Your task to perform on an android device: Add "logitech g pro" to the cart on newegg, then select checkout. Image 0: 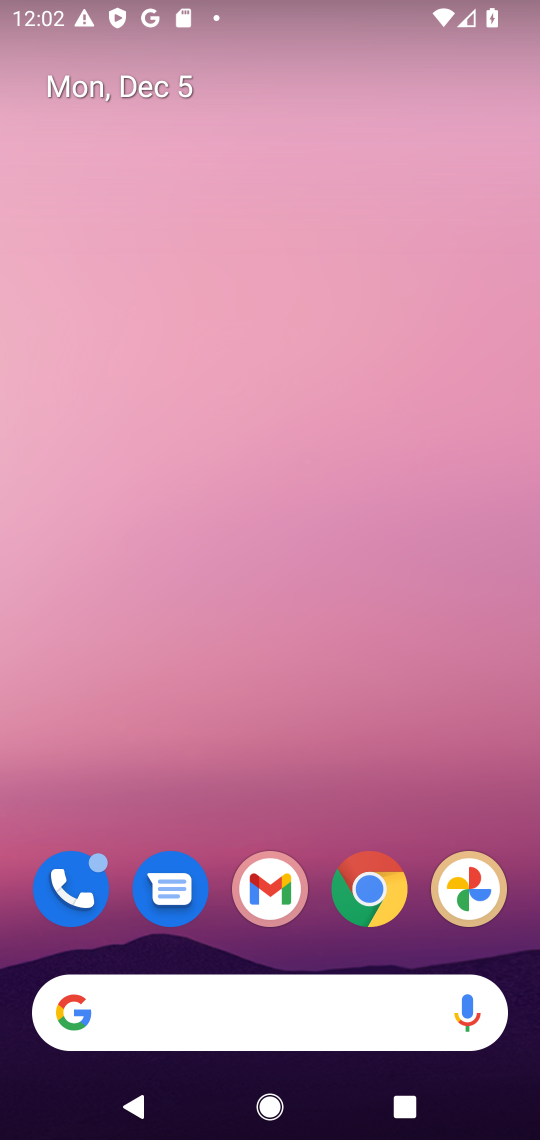
Step 0: click (373, 874)
Your task to perform on an android device: Add "logitech g pro" to the cart on newegg, then select checkout. Image 1: 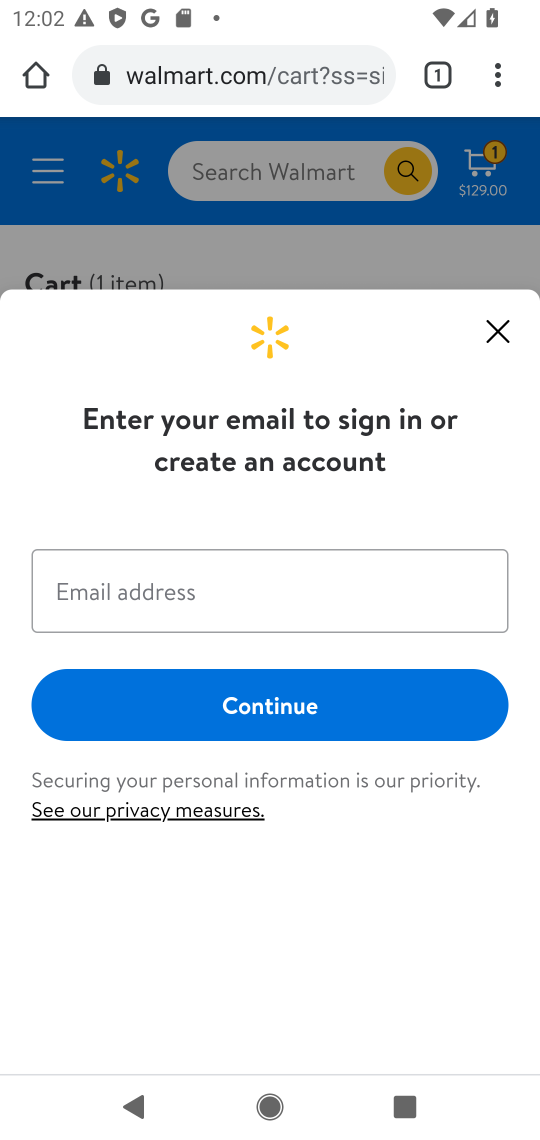
Step 1: click (305, 54)
Your task to perform on an android device: Add "logitech g pro" to the cart on newegg, then select checkout. Image 2: 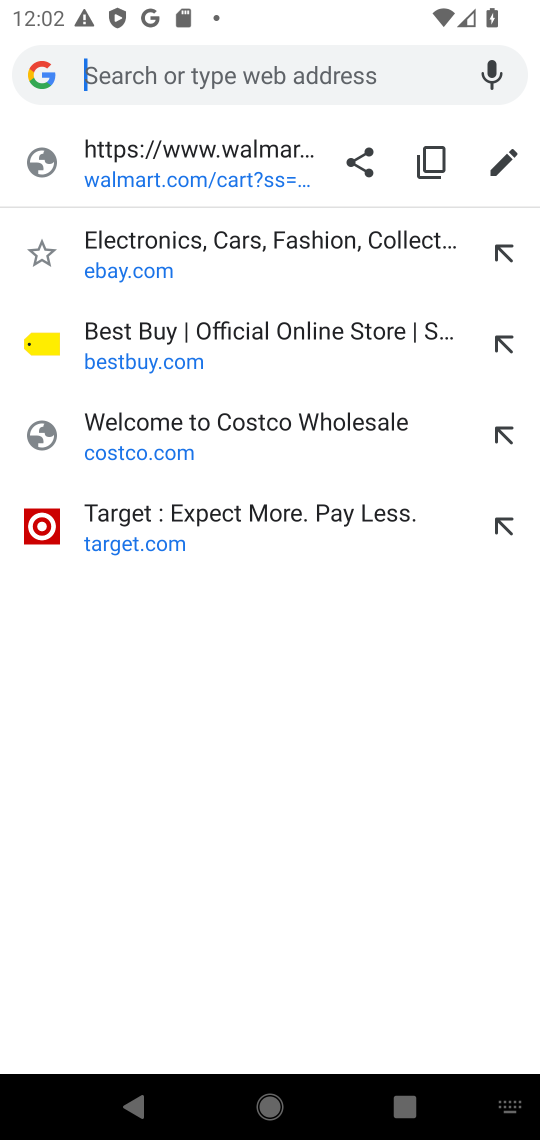
Step 2: press enter
Your task to perform on an android device: Add "logitech g pro" to the cart on newegg, then select checkout. Image 3: 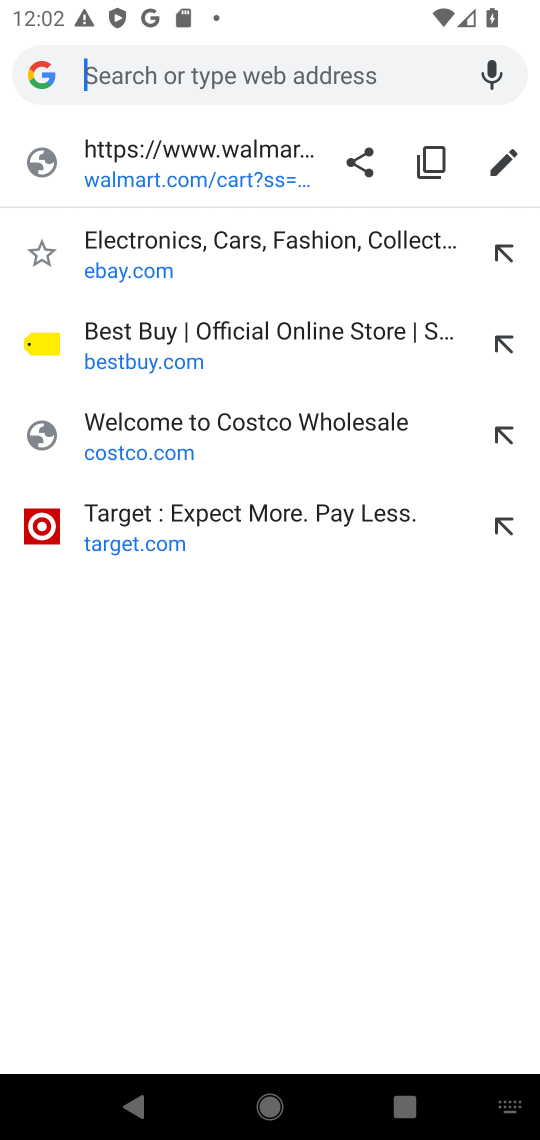
Step 3: type "newegg"
Your task to perform on an android device: Add "logitech g pro" to the cart on newegg, then select checkout. Image 4: 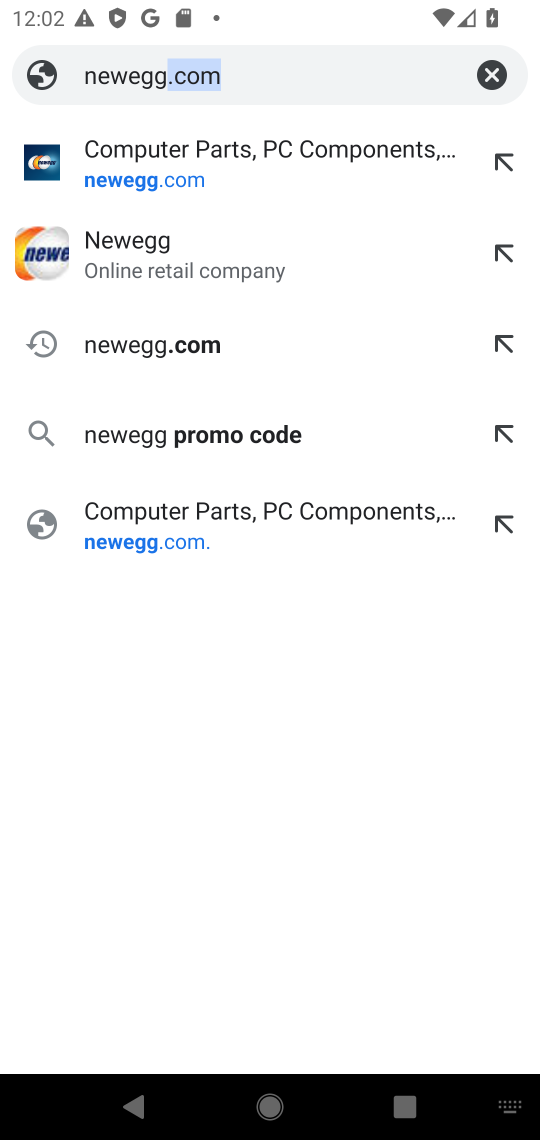
Step 4: click (345, 83)
Your task to perform on an android device: Add "logitech g pro" to the cart on newegg, then select checkout. Image 5: 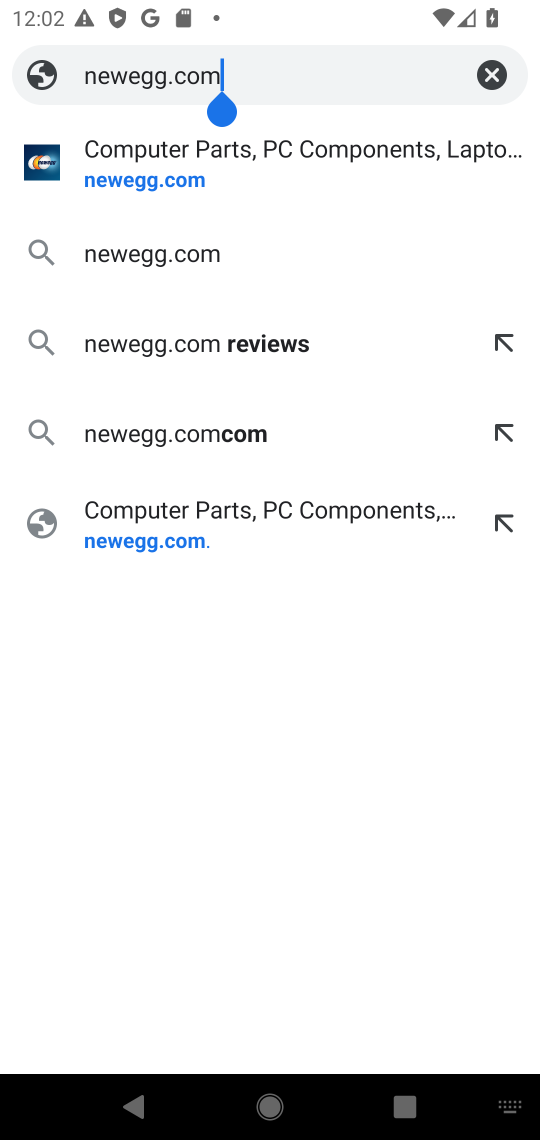
Step 5: click (183, 246)
Your task to perform on an android device: Add "logitech g pro" to the cart on newegg, then select checkout. Image 6: 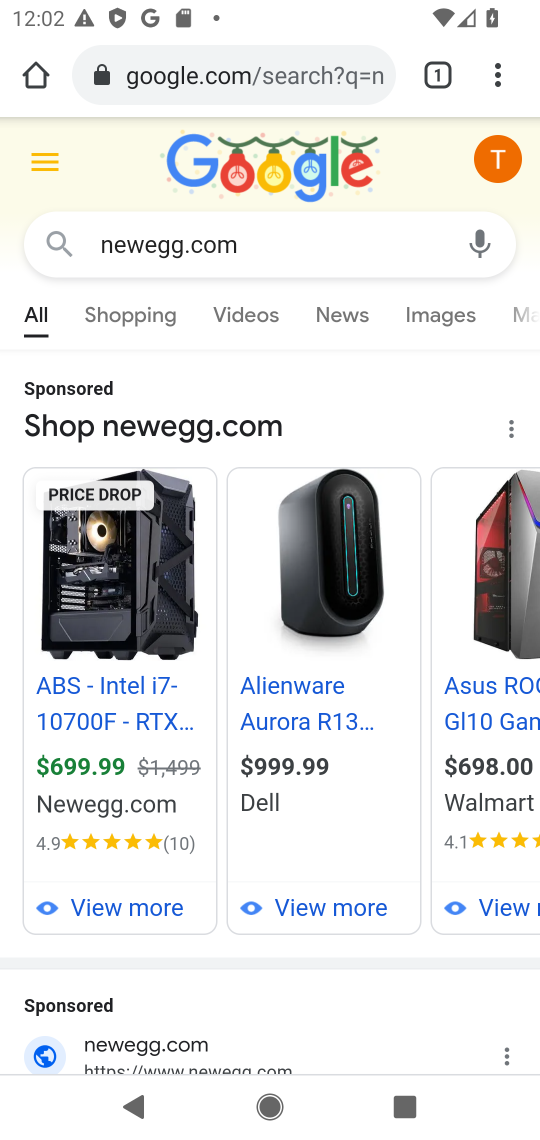
Step 6: drag from (189, 672) to (215, 303)
Your task to perform on an android device: Add "logitech g pro" to the cart on newegg, then select checkout. Image 7: 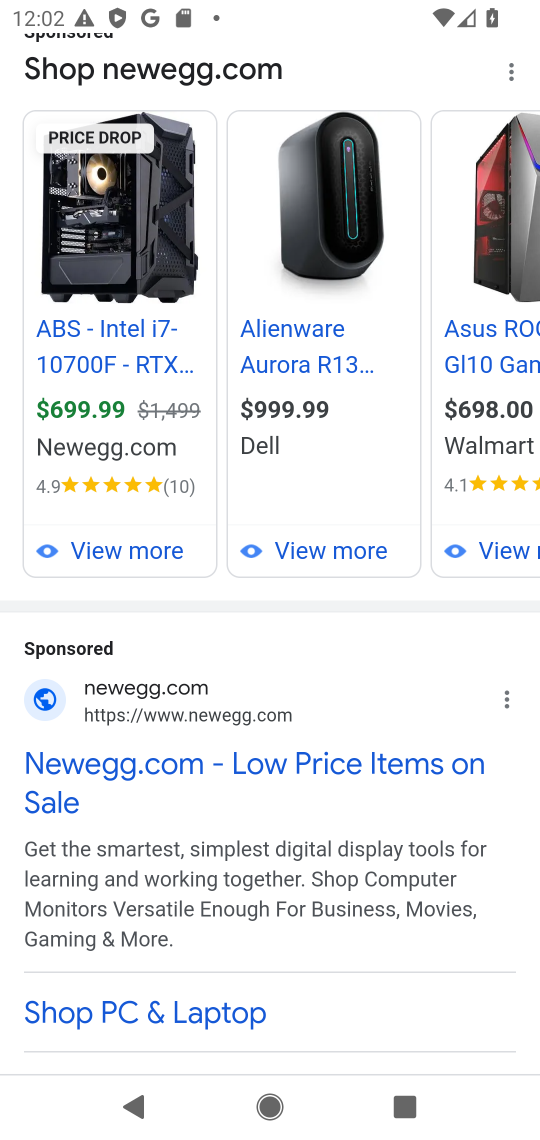
Step 7: click (203, 683)
Your task to perform on an android device: Add "logitech g pro" to the cart on newegg, then select checkout. Image 8: 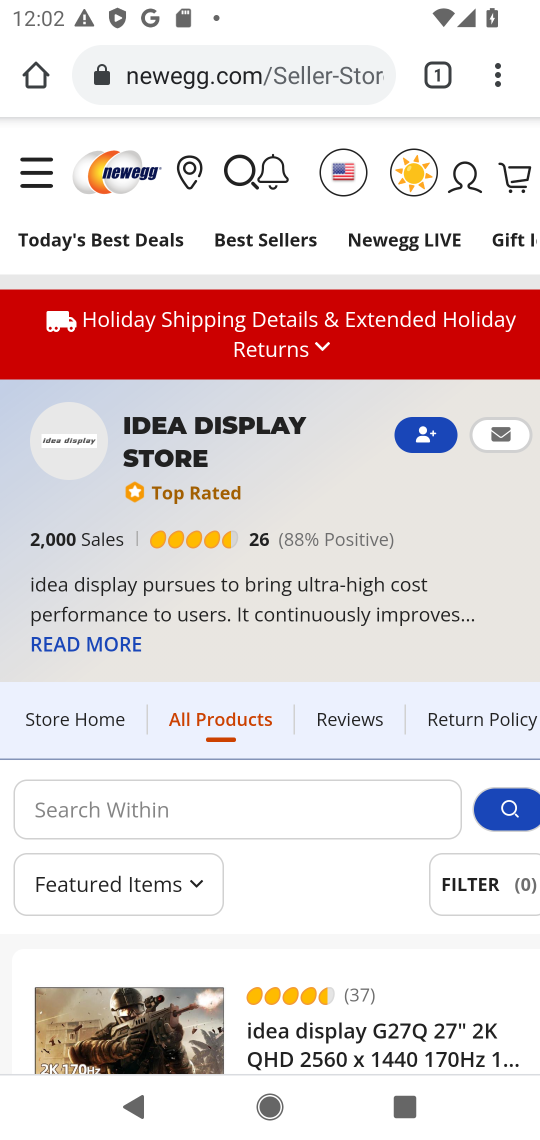
Step 8: click (235, 162)
Your task to perform on an android device: Add "logitech g pro" to the cart on newegg, then select checkout. Image 9: 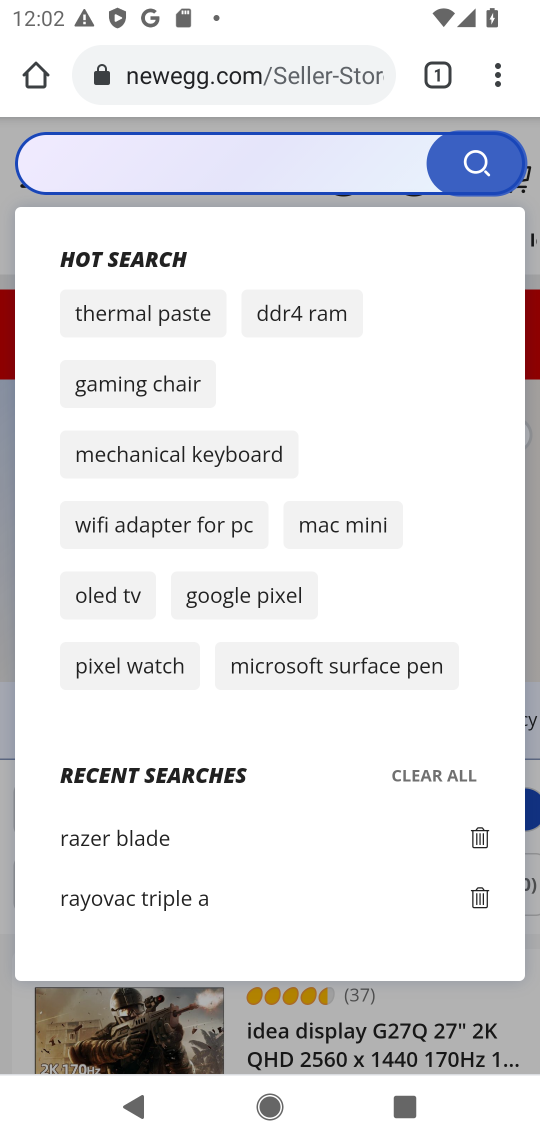
Step 9: click (288, 178)
Your task to perform on an android device: Add "logitech g pro" to the cart on newegg, then select checkout. Image 10: 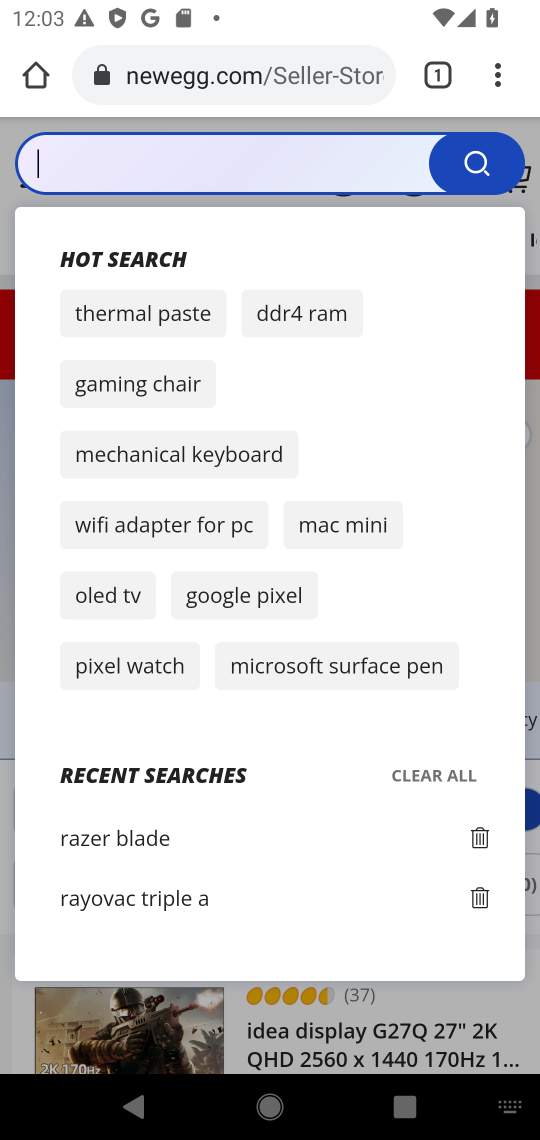
Step 10: type "logitech g pro"
Your task to perform on an android device: Add "logitech g pro" to the cart on newegg, then select checkout. Image 11: 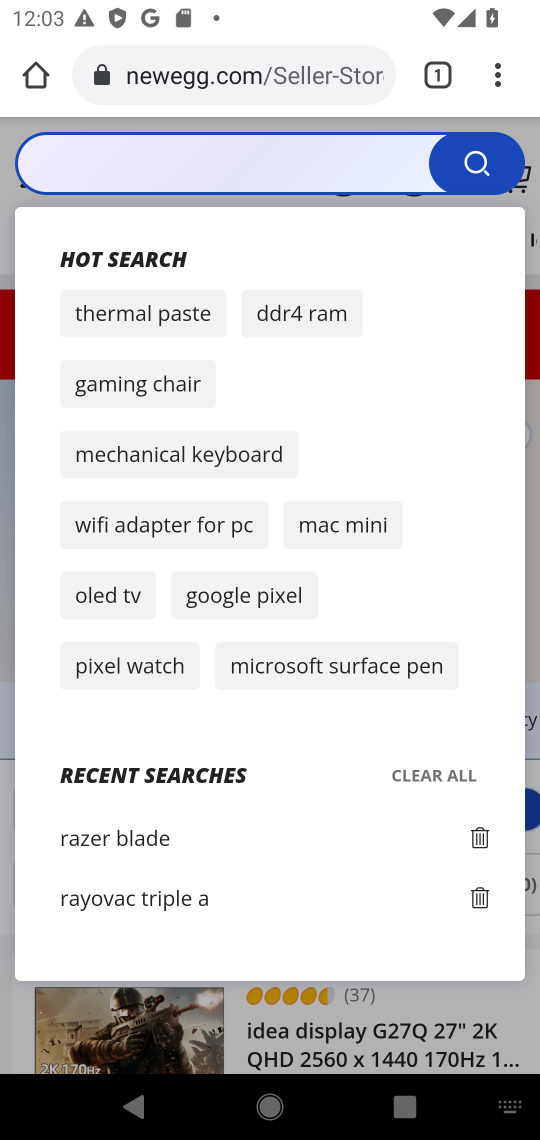
Step 11: press enter
Your task to perform on an android device: Add "logitech g pro" to the cart on newegg, then select checkout. Image 12: 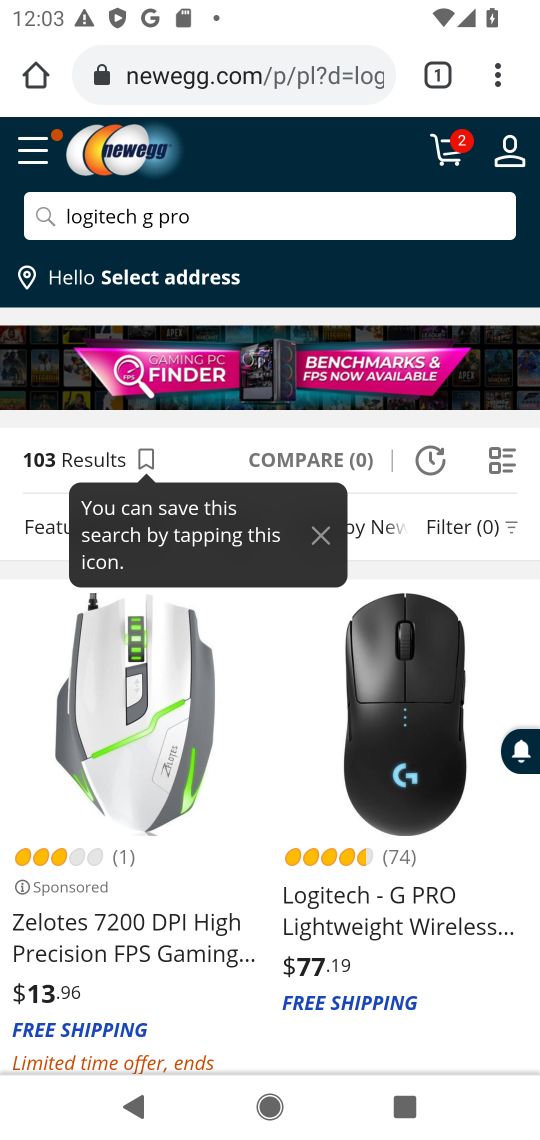
Step 12: click (438, 715)
Your task to perform on an android device: Add "logitech g pro" to the cart on newegg, then select checkout. Image 13: 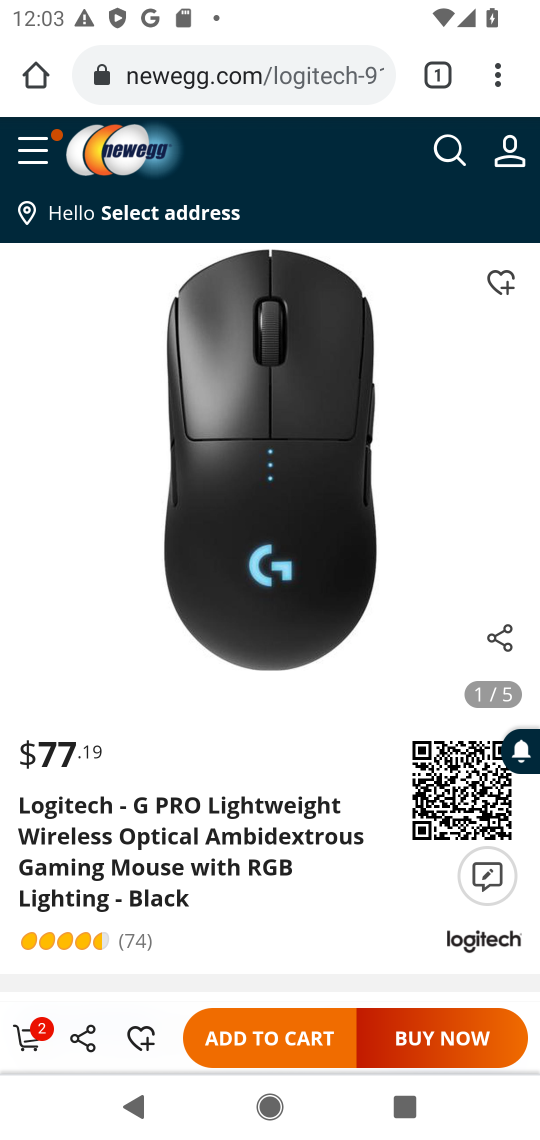
Step 13: click (276, 1031)
Your task to perform on an android device: Add "logitech g pro" to the cart on newegg, then select checkout. Image 14: 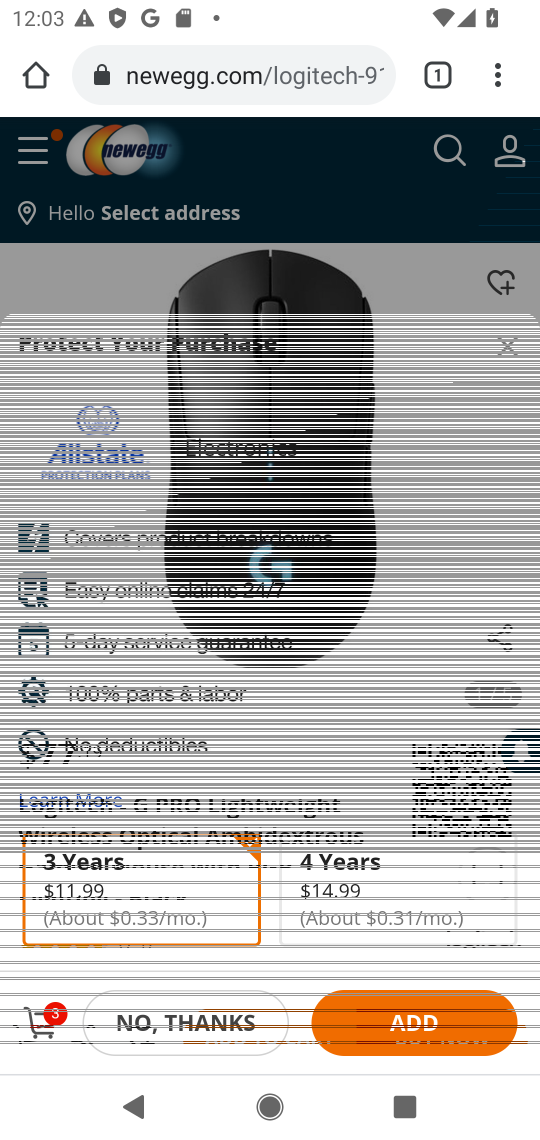
Step 14: click (37, 1023)
Your task to perform on an android device: Add "logitech g pro" to the cart on newegg, then select checkout. Image 15: 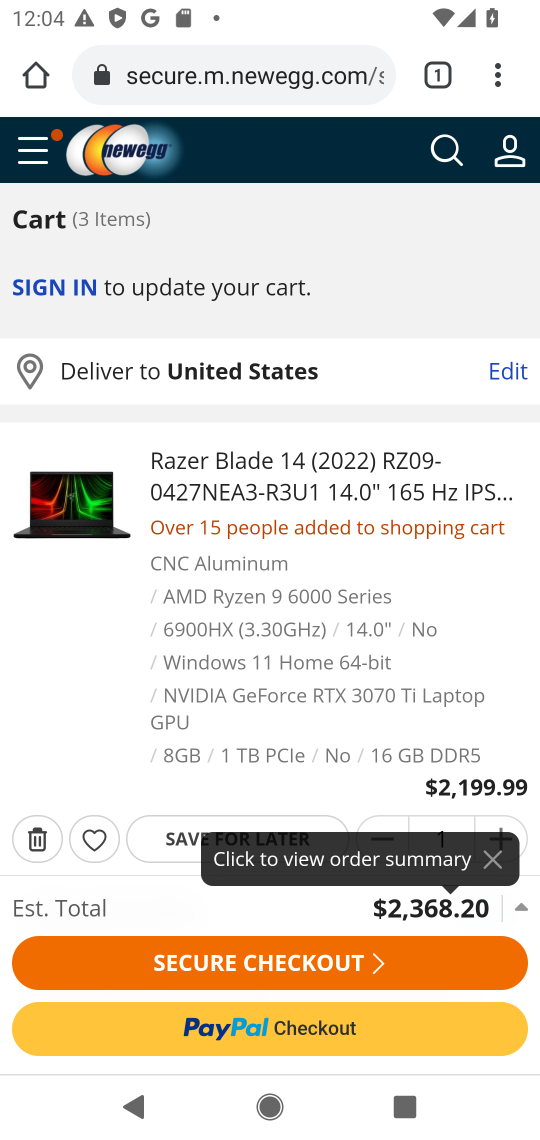
Step 15: drag from (317, 624) to (369, 111)
Your task to perform on an android device: Add "logitech g pro" to the cart on newegg, then select checkout. Image 16: 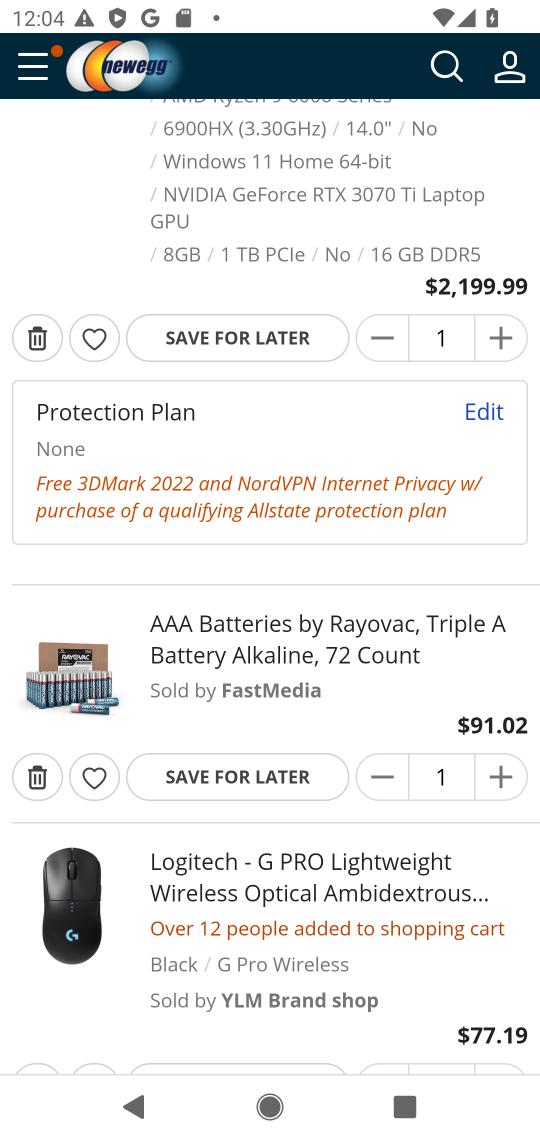
Step 16: drag from (371, 669) to (348, 250)
Your task to perform on an android device: Add "logitech g pro" to the cart on newegg, then select checkout. Image 17: 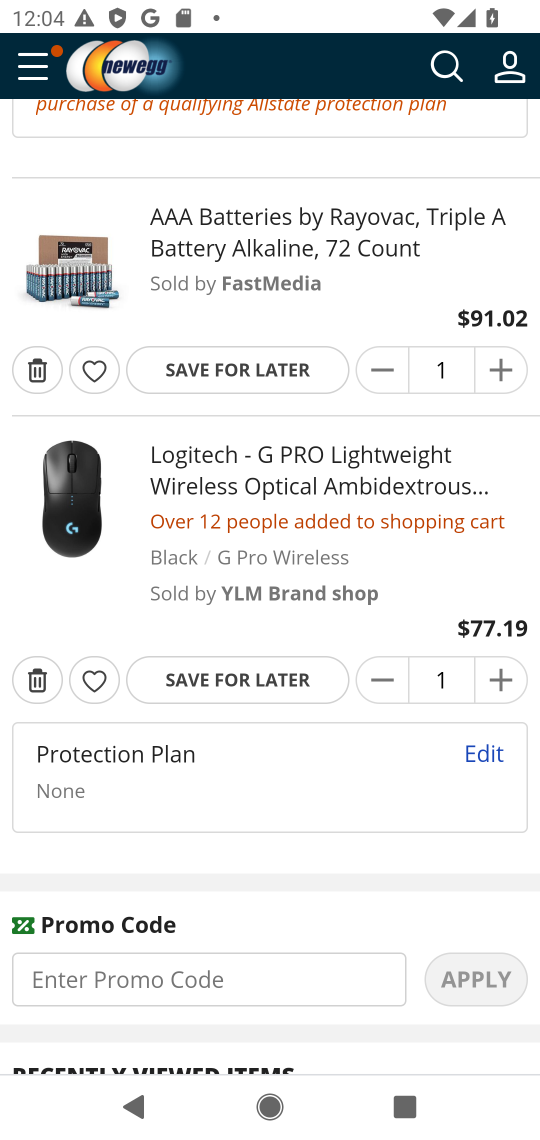
Step 17: drag from (365, 764) to (357, 402)
Your task to perform on an android device: Add "logitech g pro" to the cart on newegg, then select checkout. Image 18: 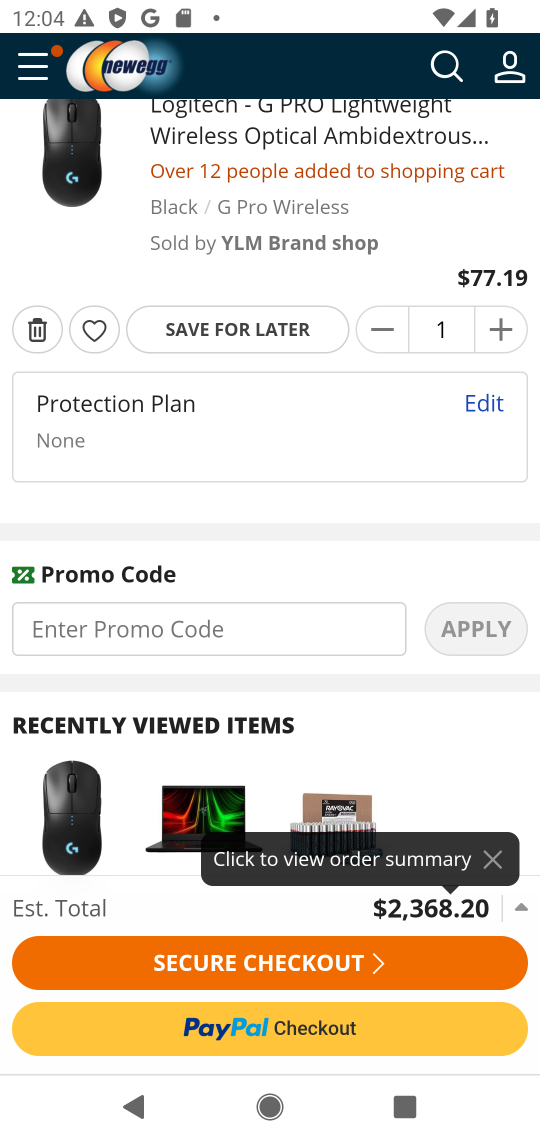
Step 18: click (257, 954)
Your task to perform on an android device: Add "logitech g pro" to the cart on newegg, then select checkout. Image 19: 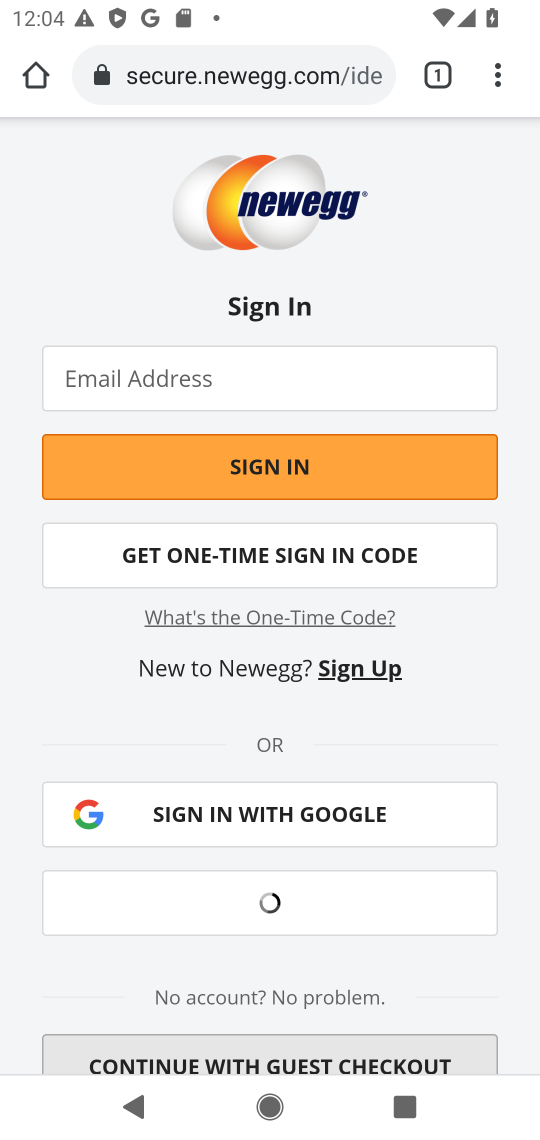
Step 19: task complete